Your task to perform on an android device: Go to location settings Image 0: 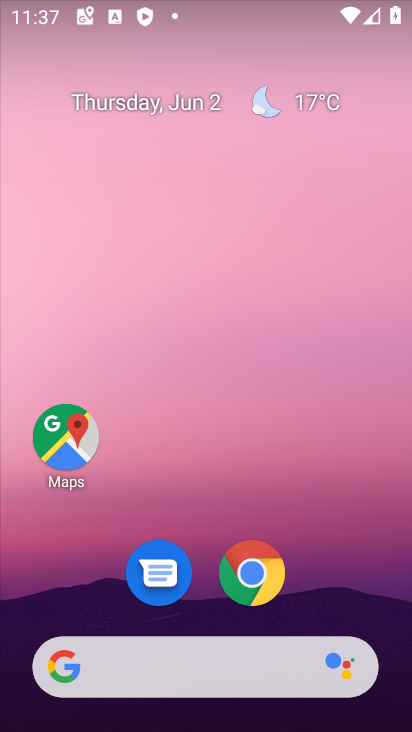
Step 0: drag from (348, 570) to (278, 5)
Your task to perform on an android device: Go to location settings Image 1: 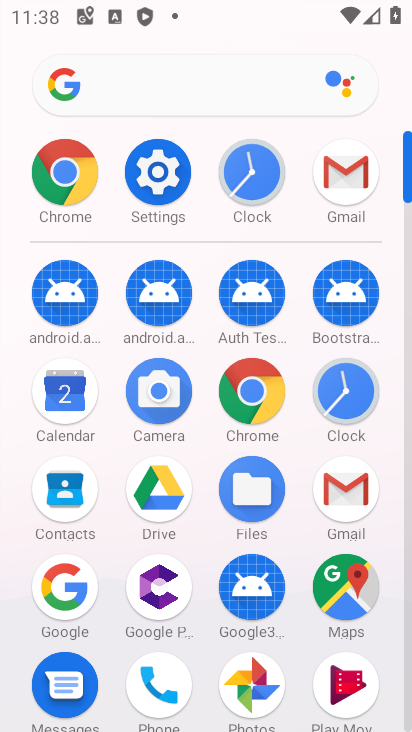
Step 1: click (185, 209)
Your task to perform on an android device: Go to location settings Image 2: 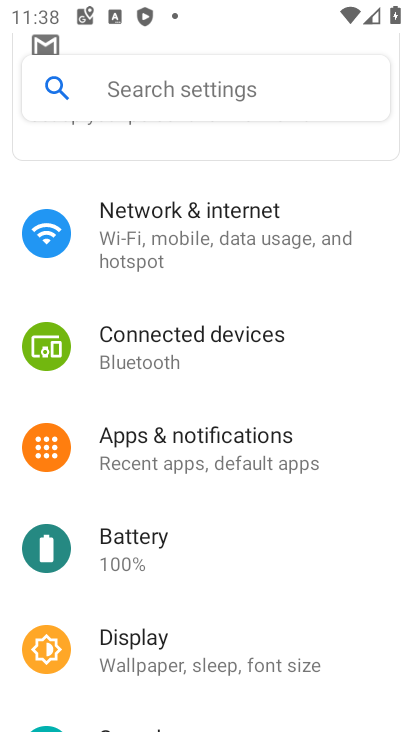
Step 2: drag from (198, 605) to (281, 126)
Your task to perform on an android device: Go to location settings Image 3: 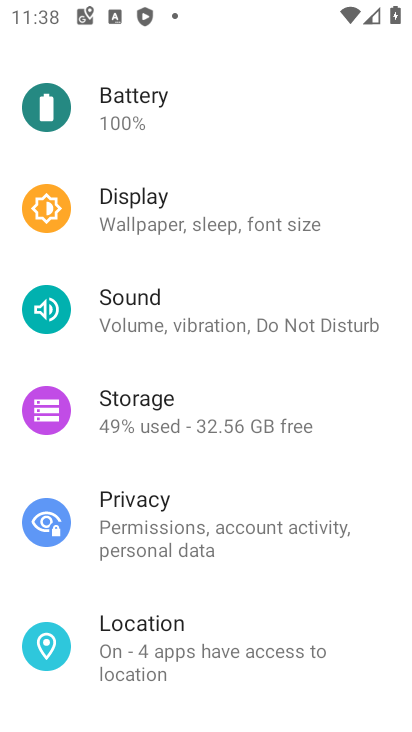
Step 3: drag from (217, 597) to (269, 184)
Your task to perform on an android device: Go to location settings Image 4: 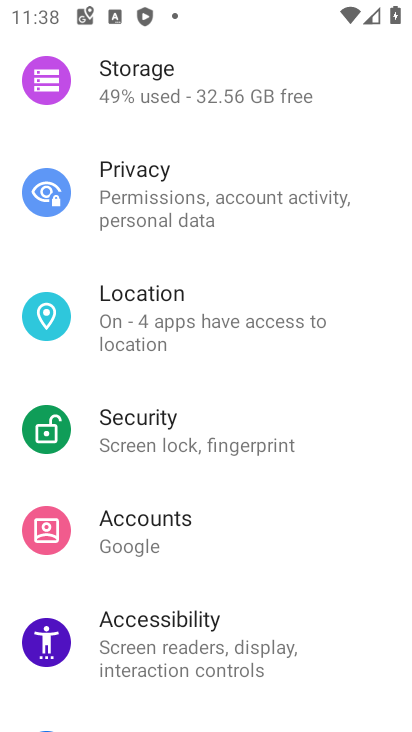
Step 4: click (147, 298)
Your task to perform on an android device: Go to location settings Image 5: 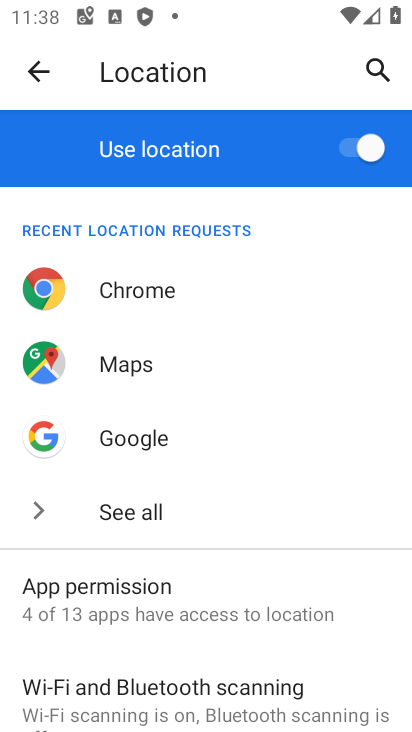
Step 5: task complete